Your task to perform on an android device: What's the weather going to be this weekend? Image 0: 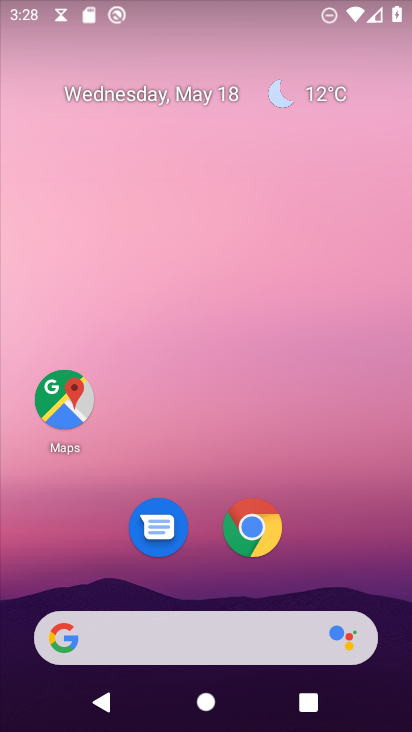
Step 0: click (315, 95)
Your task to perform on an android device: What's the weather going to be this weekend? Image 1: 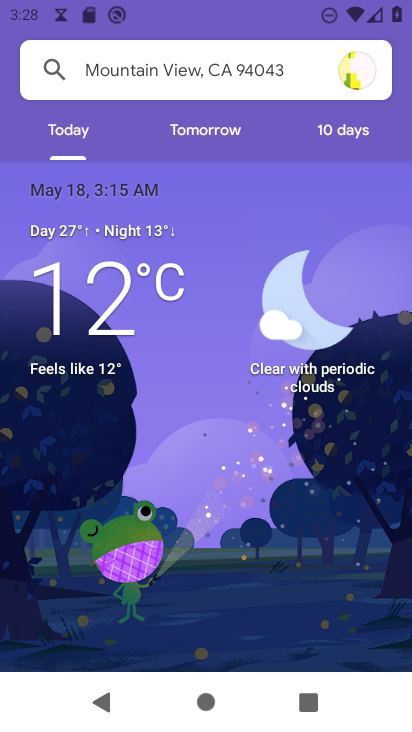
Step 1: click (339, 123)
Your task to perform on an android device: What's the weather going to be this weekend? Image 2: 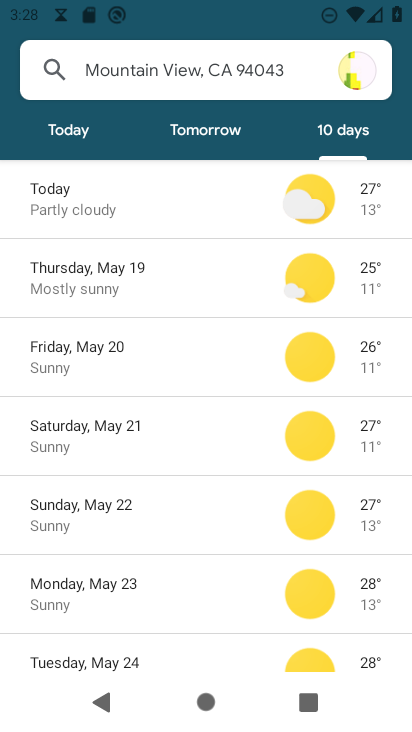
Step 2: task complete